Your task to perform on an android device: Go to calendar. Show me events next week Image 0: 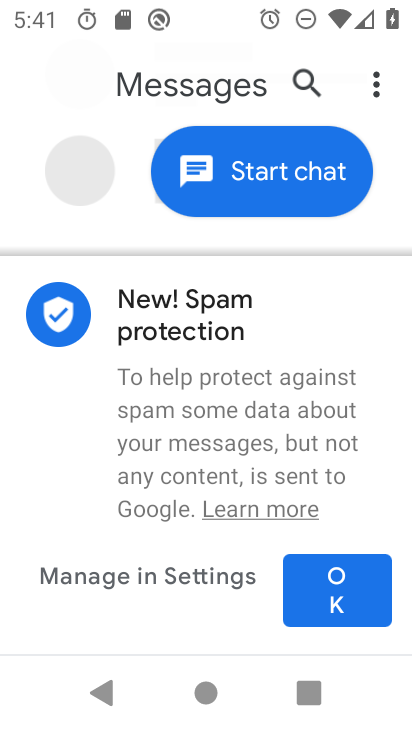
Step 0: press home button
Your task to perform on an android device: Go to calendar. Show me events next week Image 1: 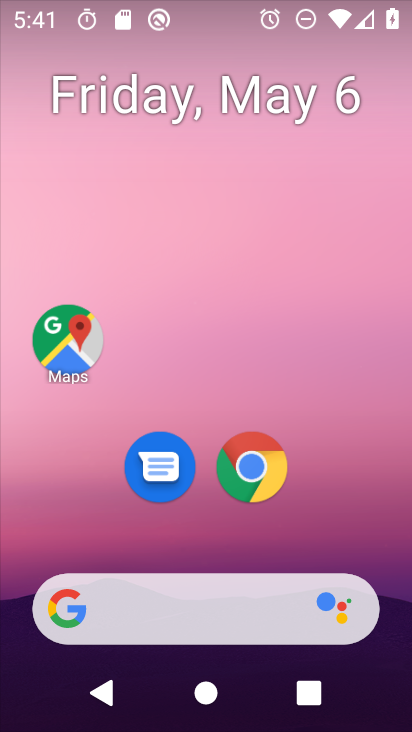
Step 1: drag from (306, 354) to (253, 179)
Your task to perform on an android device: Go to calendar. Show me events next week Image 2: 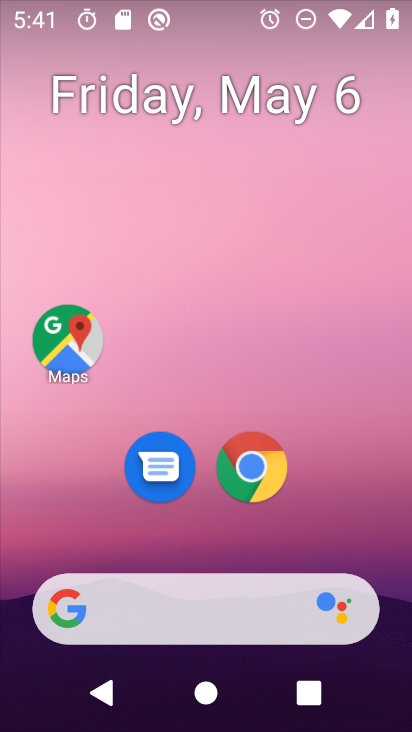
Step 2: click (348, 102)
Your task to perform on an android device: Go to calendar. Show me events next week Image 3: 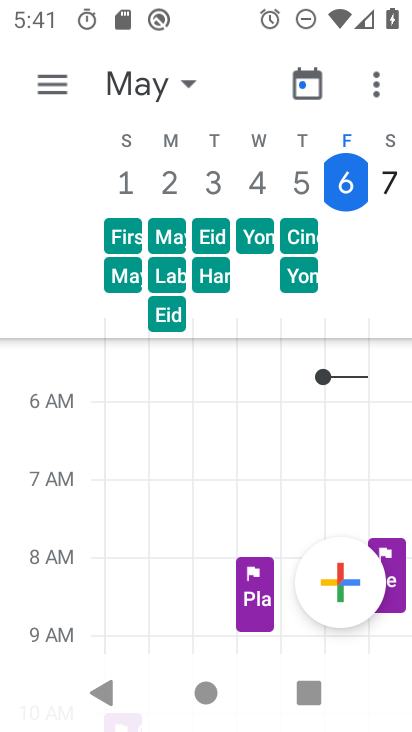
Step 3: click (149, 80)
Your task to perform on an android device: Go to calendar. Show me events next week Image 4: 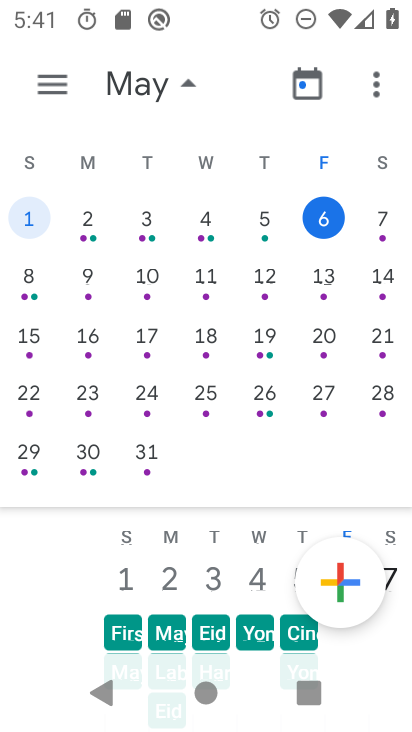
Step 4: click (26, 285)
Your task to perform on an android device: Go to calendar. Show me events next week Image 5: 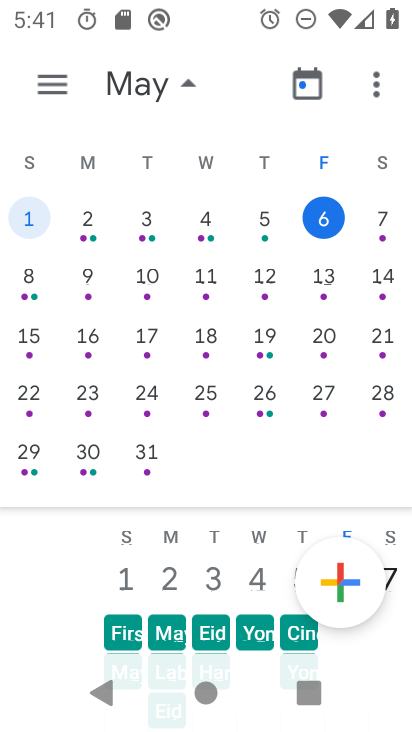
Step 5: click (26, 285)
Your task to perform on an android device: Go to calendar. Show me events next week Image 6: 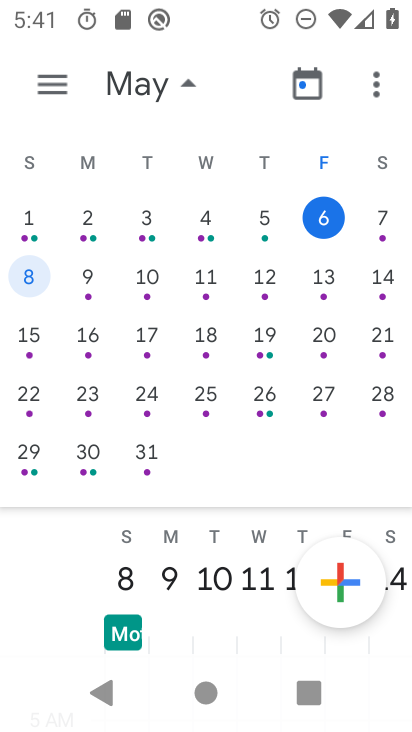
Step 6: task complete